Your task to perform on an android device: find photos in the google photos app Image 0: 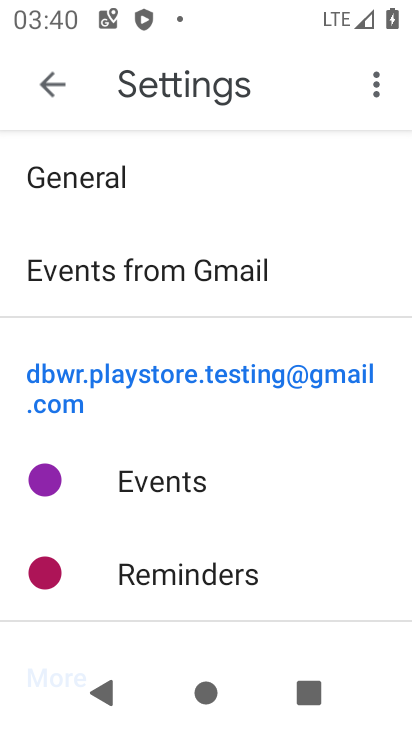
Step 0: press home button
Your task to perform on an android device: find photos in the google photos app Image 1: 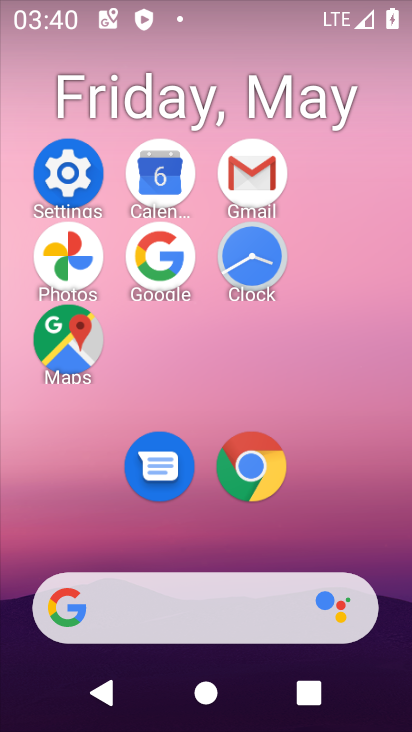
Step 1: click (96, 262)
Your task to perform on an android device: find photos in the google photos app Image 2: 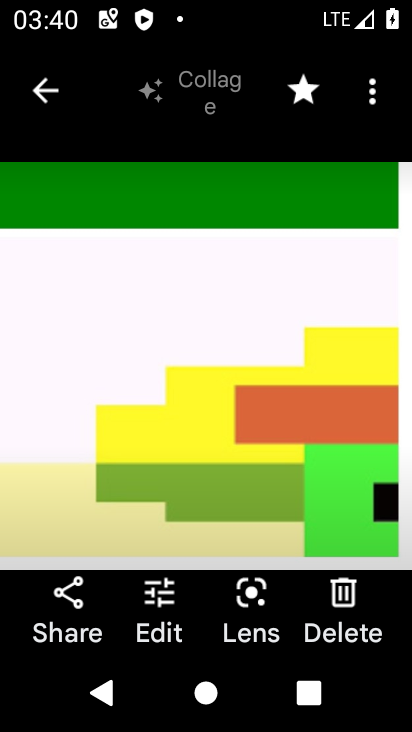
Step 2: task complete